Your task to perform on an android device: Open Google Maps Image 0: 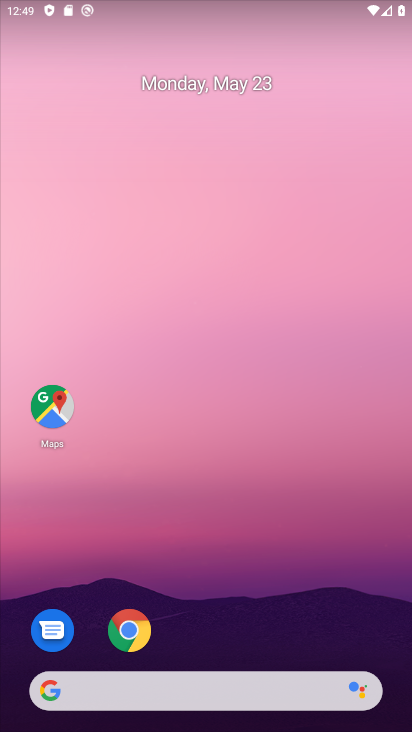
Step 0: drag from (310, 550) to (371, 195)
Your task to perform on an android device: Open Google Maps Image 1: 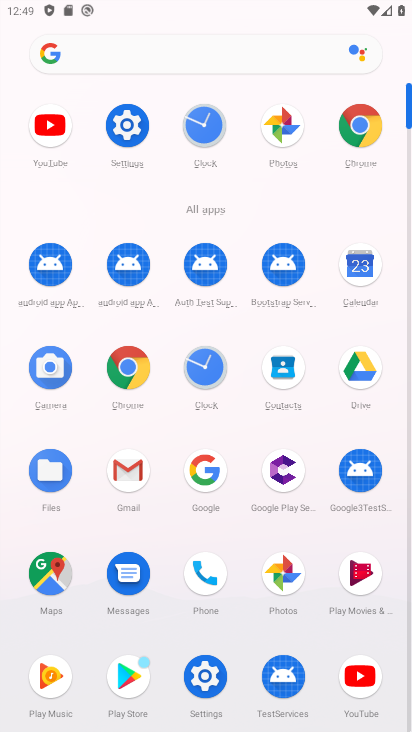
Step 1: click (54, 576)
Your task to perform on an android device: Open Google Maps Image 2: 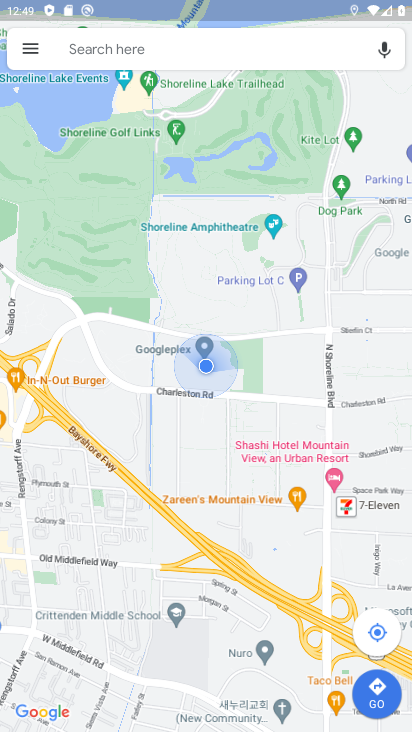
Step 2: task complete